Your task to perform on an android device: Go to wifi settings Image 0: 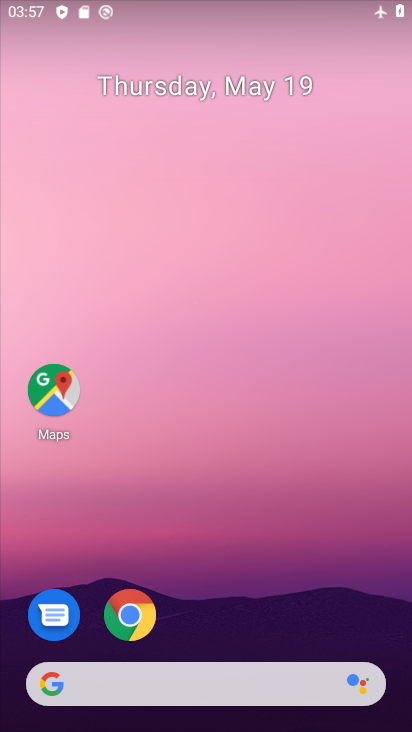
Step 0: drag from (358, 594) to (375, 7)
Your task to perform on an android device: Go to wifi settings Image 1: 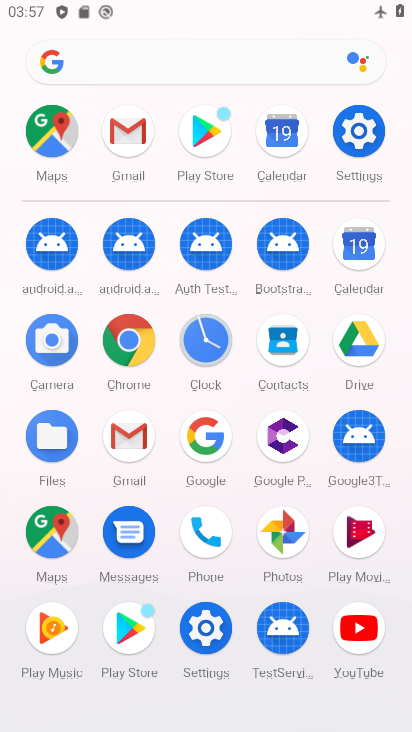
Step 1: click (358, 141)
Your task to perform on an android device: Go to wifi settings Image 2: 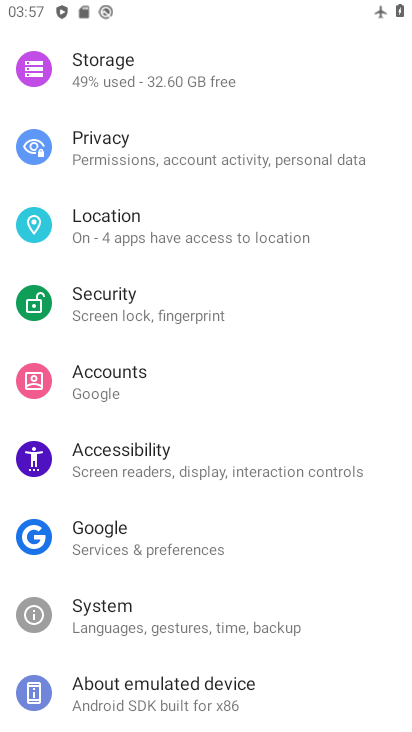
Step 2: drag from (358, 141) to (291, 726)
Your task to perform on an android device: Go to wifi settings Image 3: 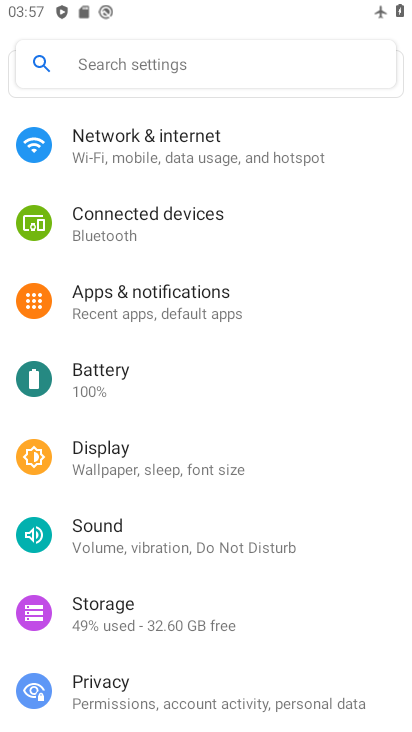
Step 3: click (153, 149)
Your task to perform on an android device: Go to wifi settings Image 4: 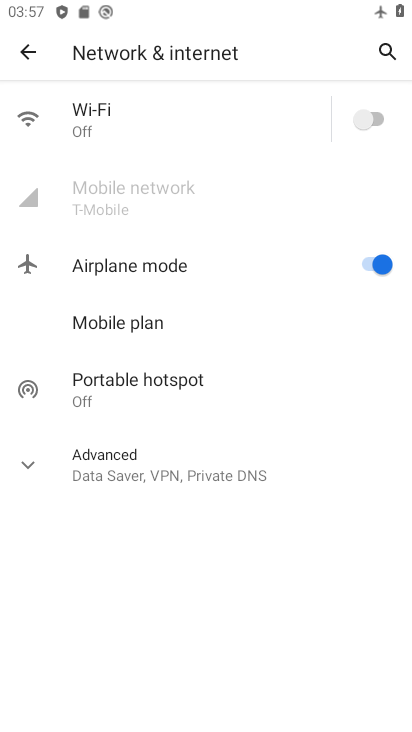
Step 4: click (46, 124)
Your task to perform on an android device: Go to wifi settings Image 5: 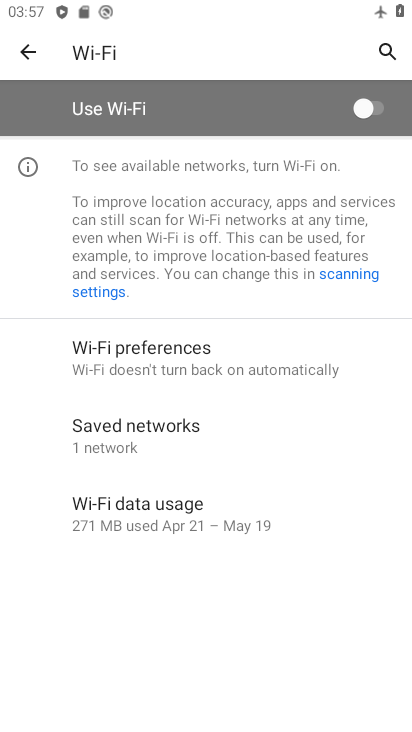
Step 5: task complete